Your task to perform on an android device: toggle wifi Image 0: 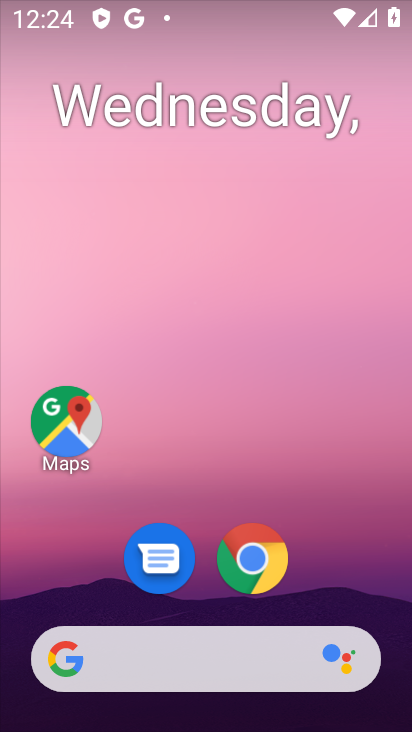
Step 0: drag from (228, 579) to (204, 407)
Your task to perform on an android device: toggle wifi Image 1: 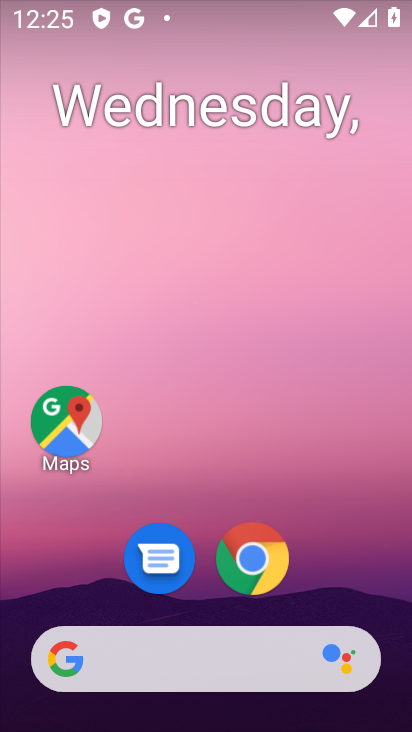
Step 1: drag from (213, 479) to (208, 224)
Your task to perform on an android device: toggle wifi Image 2: 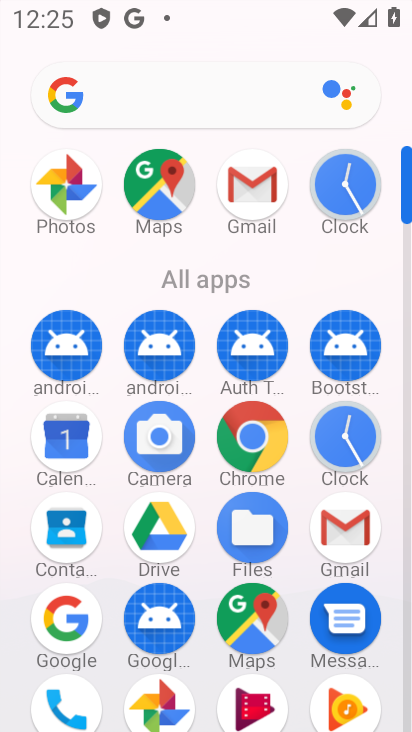
Step 2: drag from (269, 400) to (248, 327)
Your task to perform on an android device: toggle wifi Image 3: 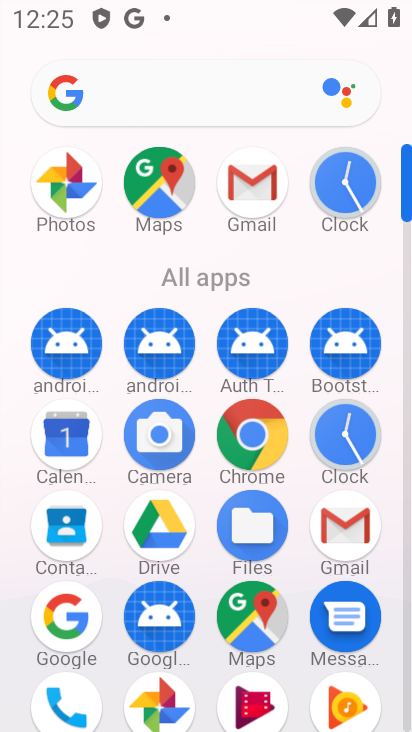
Step 3: drag from (238, 477) to (163, 58)
Your task to perform on an android device: toggle wifi Image 4: 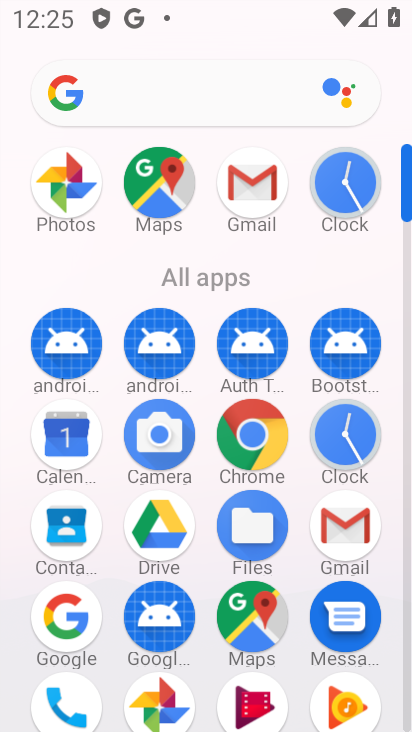
Step 4: drag from (242, 404) to (196, 259)
Your task to perform on an android device: toggle wifi Image 5: 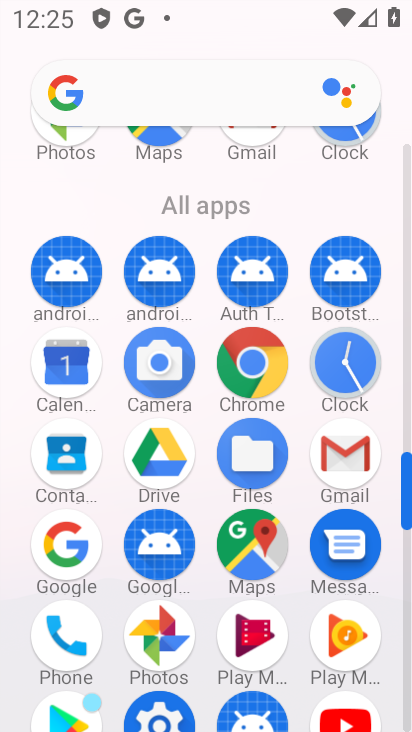
Step 5: drag from (222, 473) to (211, 212)
Your task to perform on an android device: toggle wifi Image 6: 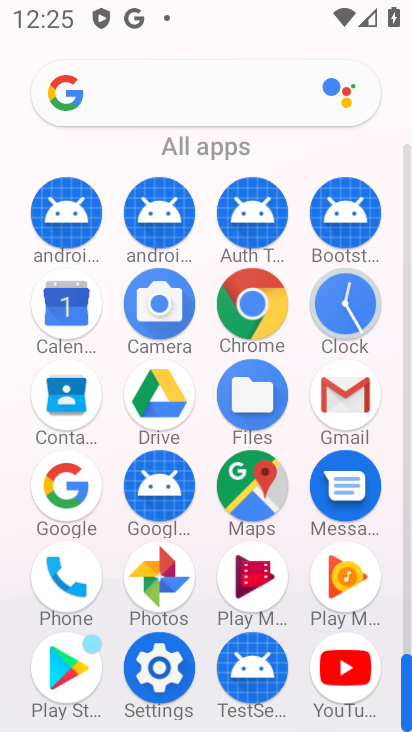
Step 6: drag from (256, 496) to (226, 245)
Your task to perform on an android device: toggle wifi Image 7: 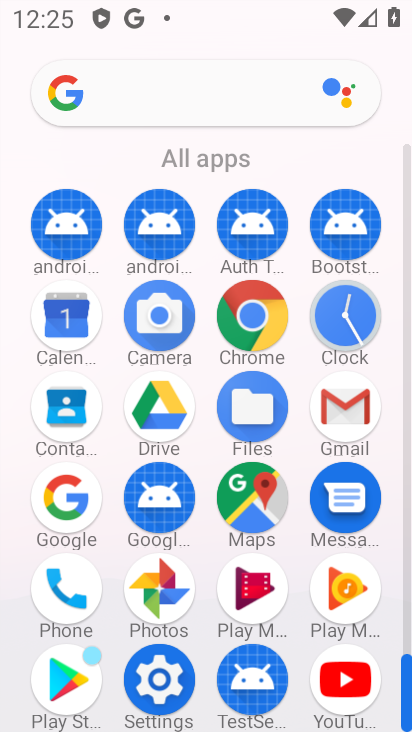
Step 7: click (165, 687)
Your task to perform on an android device: toggle wifi Image 8: 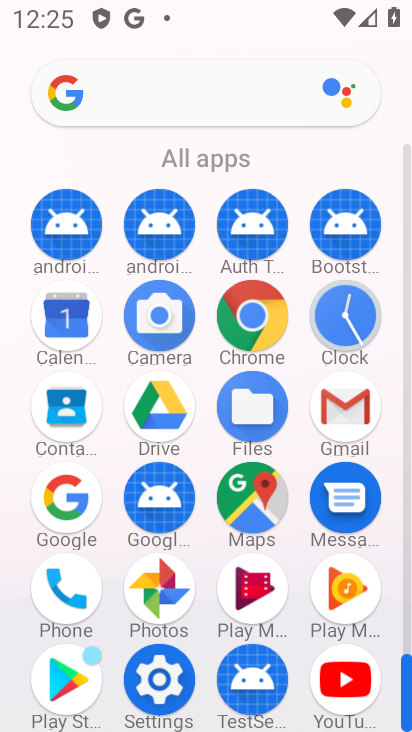
Step 8: click (173, 677)
Your task to perform on an android device: toggle wifi Image 9: 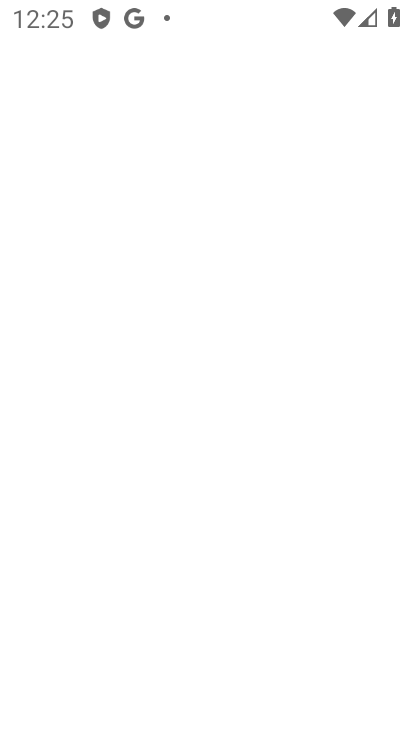
Step 9: click (175, 677)
Your task to perform on an android device: toggle wifi Image 10: 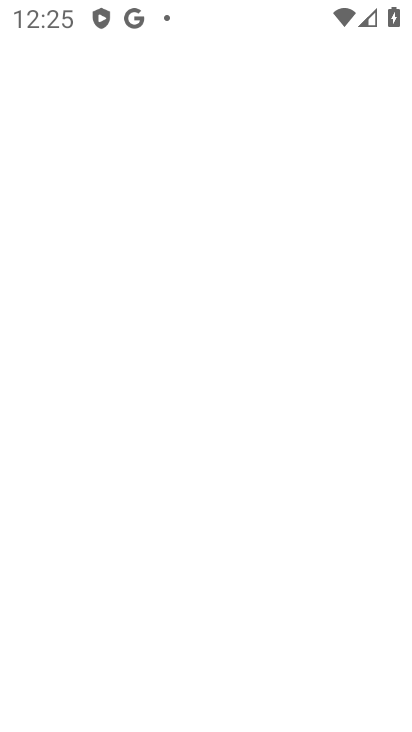
Step 10: click (175, 677)
Your task to perform on an android device: toggle wifi Image 11: 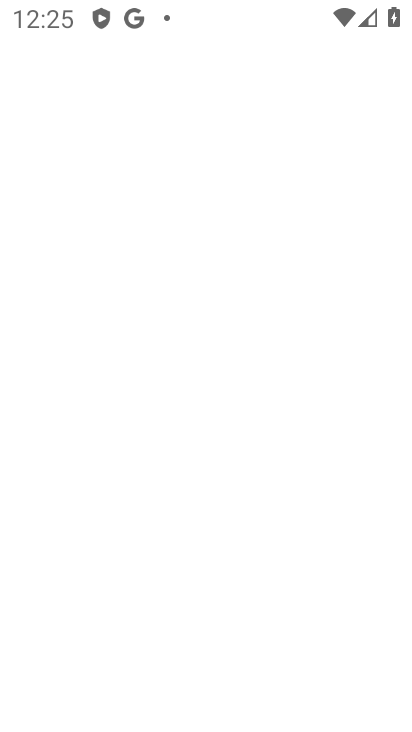
Step 11: click (175, 677)
Your task to perform on an android device: toggle wifi Image 12: 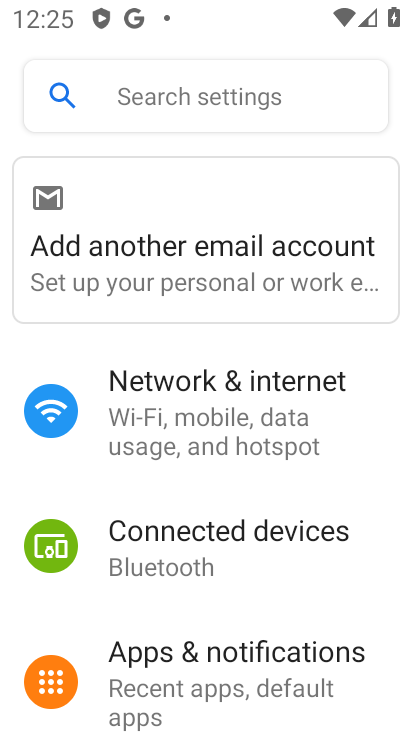
Step 12: click (227, 408)
Your task to perform on an android device: toggle wifi Image 13: 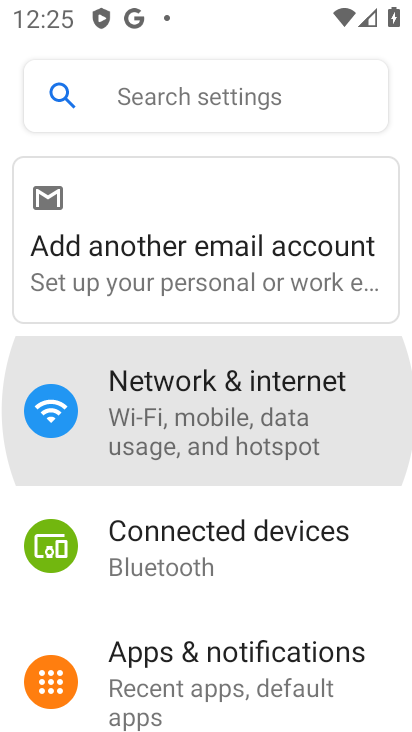
Step 13: click (226, 408)
Your task to perform on an android device: toggle wifi Image 14: 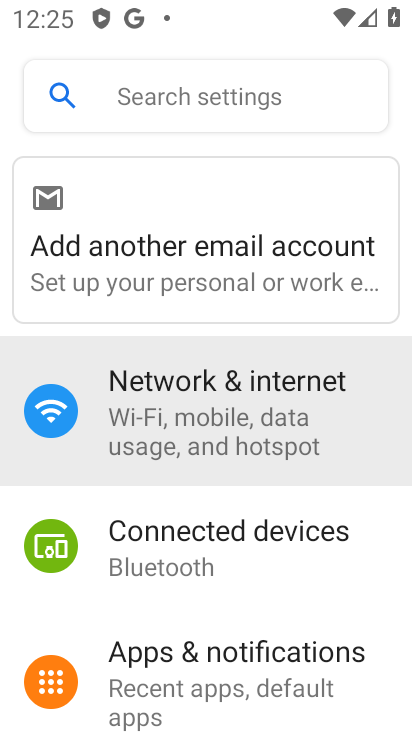
Step 14: click (225, 408)
Your task to perform on an android device: toggle wifi Image 15: 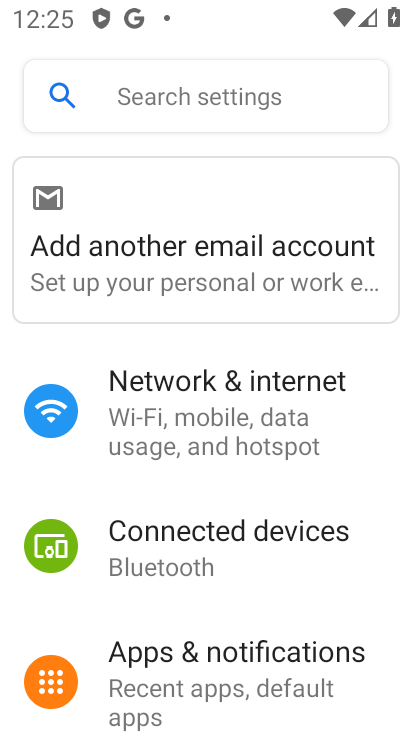
Step 15: click (227, 408)
Your task to perform on an android device: toggle wifi Image 16: 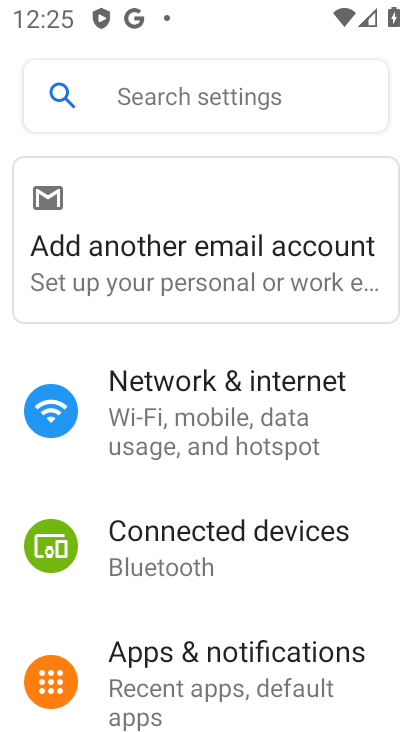
Step 16: click (235, 408)
Your task to perform on an android device: toggle wifi Image 17: 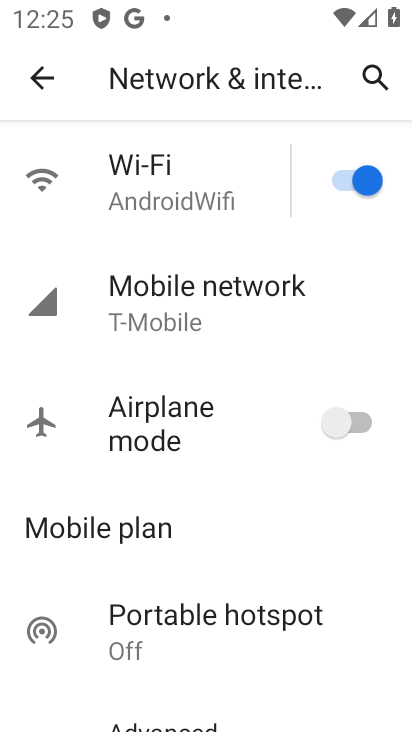
Step 17: click (369, 163)
Your task to perform on an android device: toggle wifi Image 18: 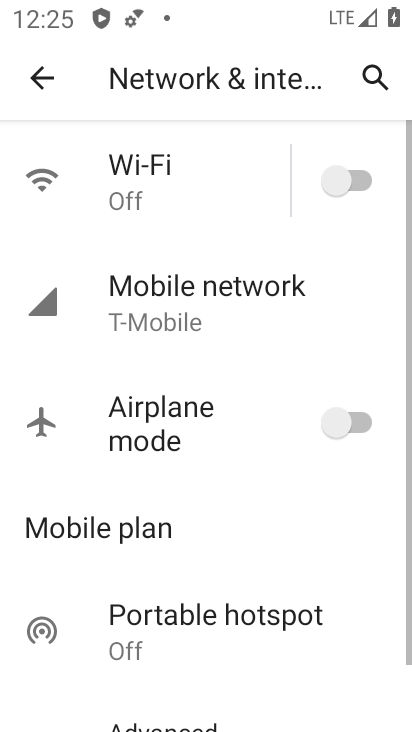
Step 18: task complete